Your task to perform on an android device: Open Google Chrome Image 0: 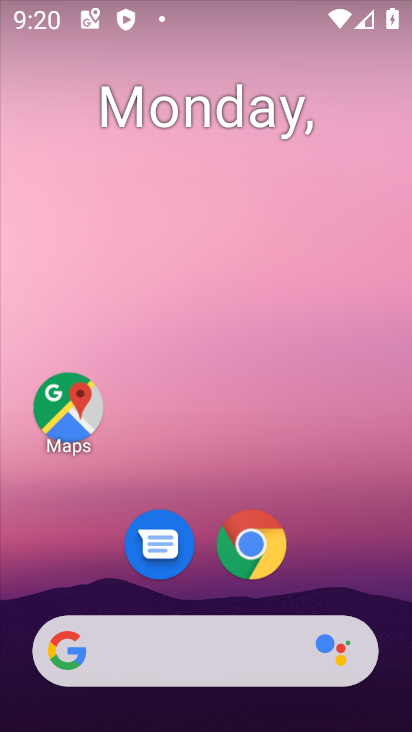
Step 0: click (245, 543)
Your task to perform on an android device: Open Google Chrome Image 1: 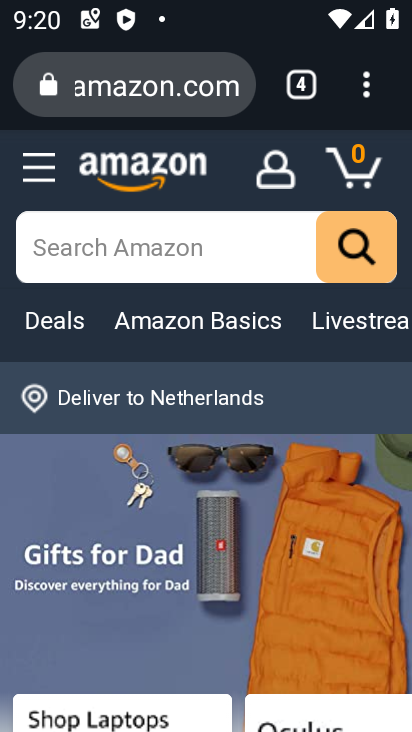
Step 1: task complete